Your task to perform on an android device: all mails in gmail Image 0: 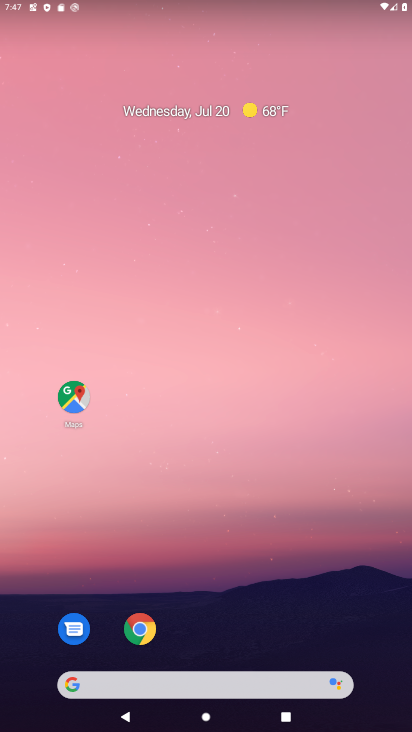
Step 0: drag from (304, 617) to (320, 53)
Your task to perform on an android device: all mails in gmail Image 1: 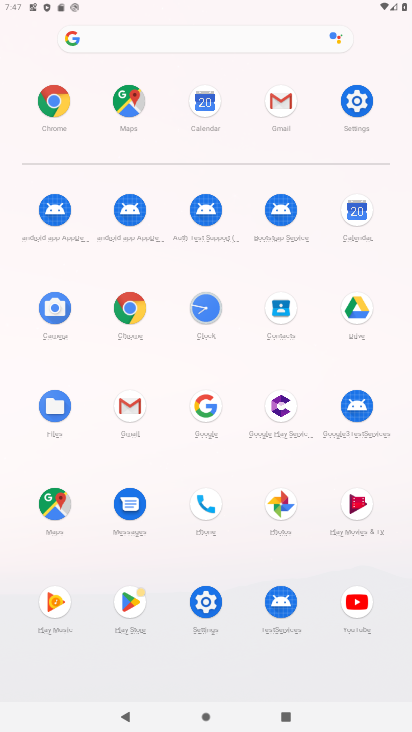
Step 1: click (132, 406)
Your task to perform on an android device: all mails in gmail Image 2: 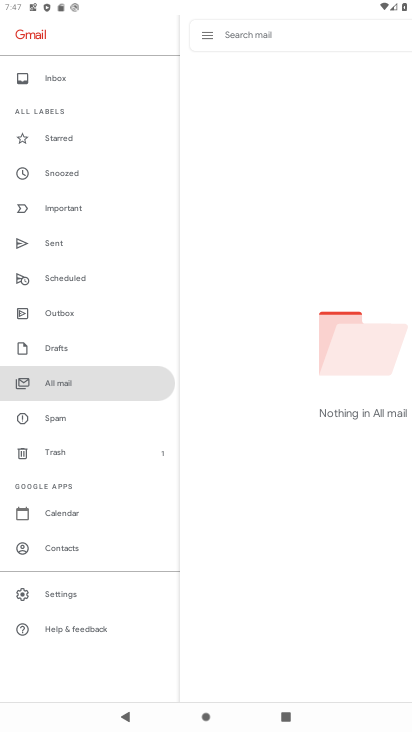
Step 2: click (100, 377)
Your task to perform on an android device: all mails in gmail Image 3: 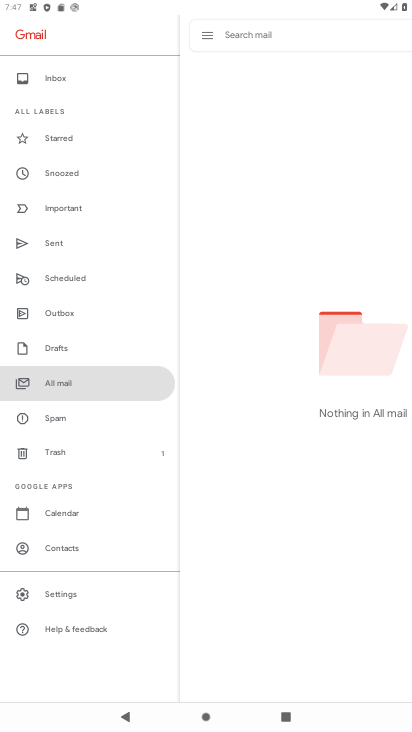
Step 3: task complete